Your task to perform on an android device: turn notification dots off Image 0: 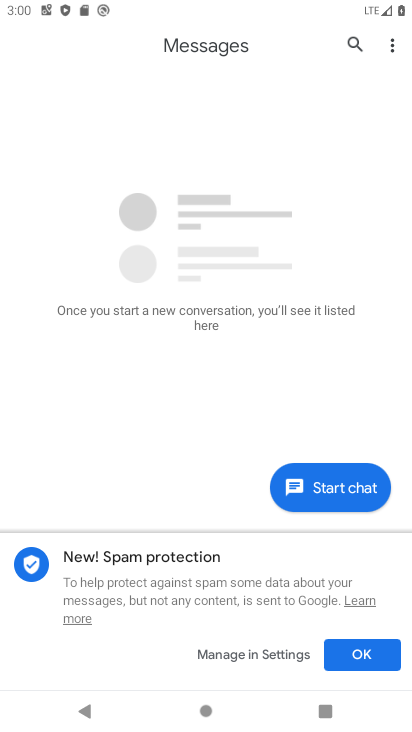
Step 0: press home button
Your task to perform on an android device: turn notification dots off Image 1: 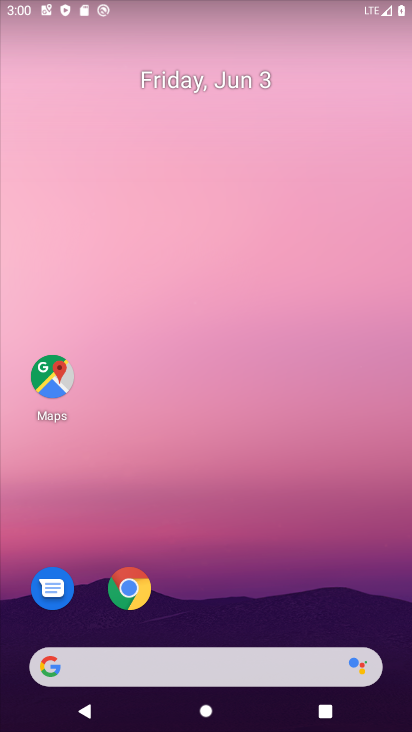
Step 1: drag from (22, 566) to (285, 100)
Your task to perform on an android device: turn notification dots off Image 2: 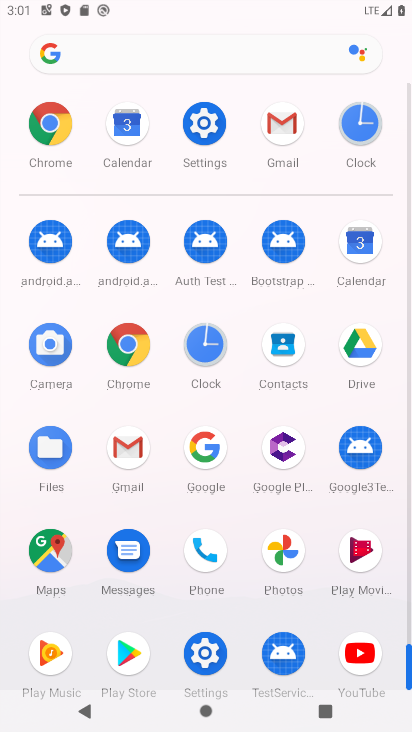
Step 2: click (200, 120)
Your task to perform on an android device: turn notification dots off Image 3: 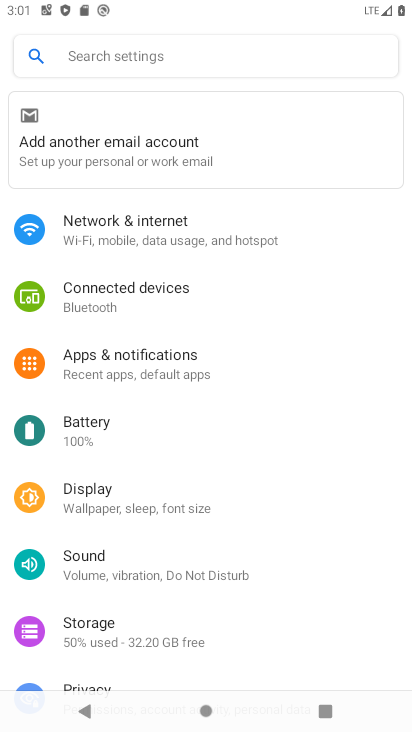
Step 3: click (102, 368)
Your task to perform on an android device: turn notification dots off Image 4: 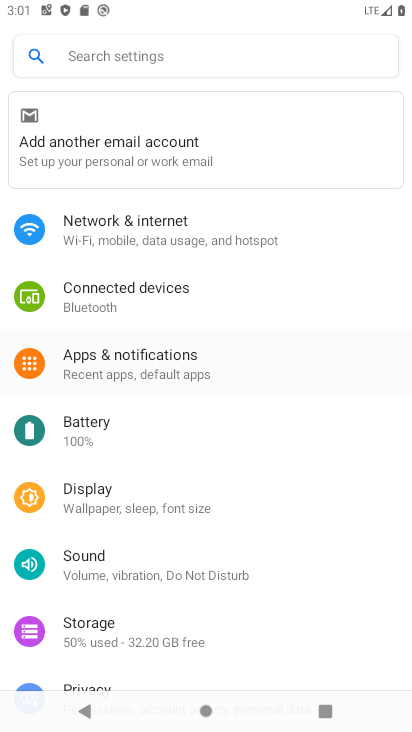
Step 4: press home button
Your task to perform on an android device: turn notification dots off Image 5: 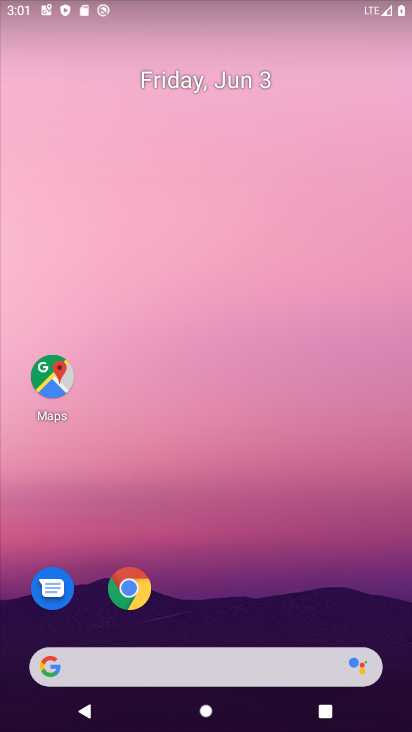
Step 5: drag from (59, 453) to (241, 93)
Your task to perform on an android device: turn notification dots off Image 6: 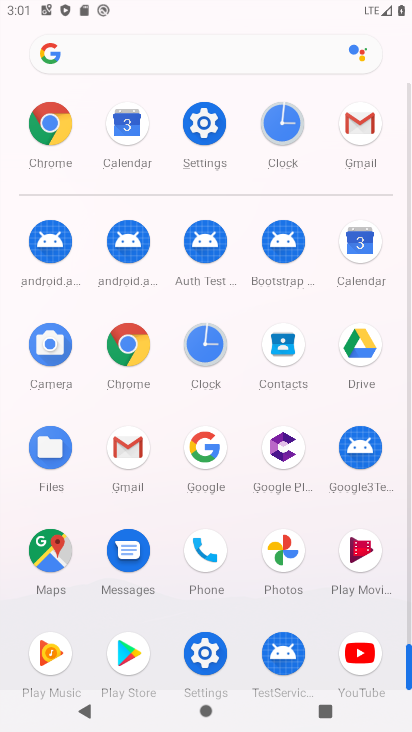
Step 6: click (212, 128)
Your task to perform on an android device: turn notification dots off Image 7: 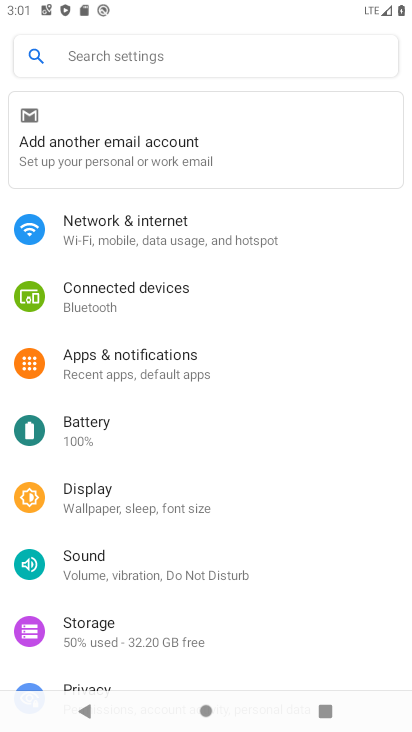
Step 7: click (143, 377)
Your task to perform on an android device: turn notification dots off Image 8: 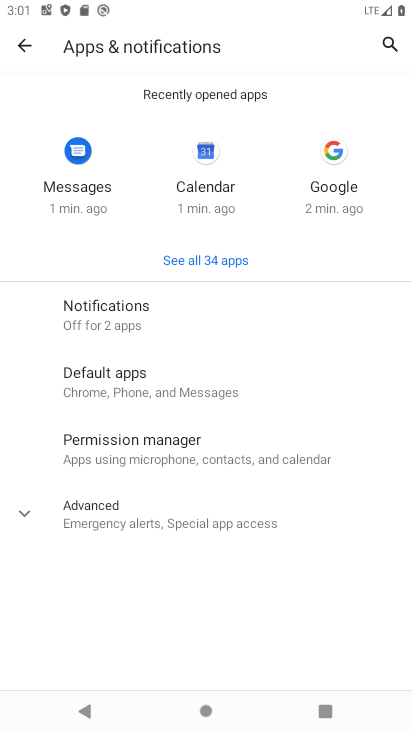
Step 8: task complete